Your task to perform on an android device: Go to display settings Image 0: 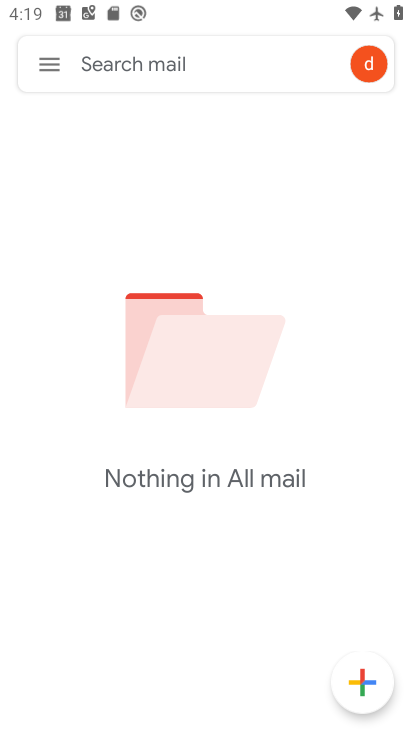
Step 0: press home button
Your task to perform on an android device: Go to display settings Image 1: 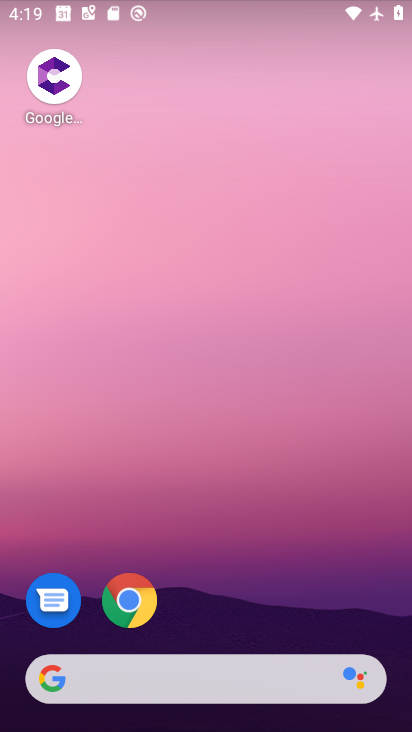
Step 1: drag from (261, 582) to (167, 170)
Your task to perform on an android device: Go to display settings Image 2: 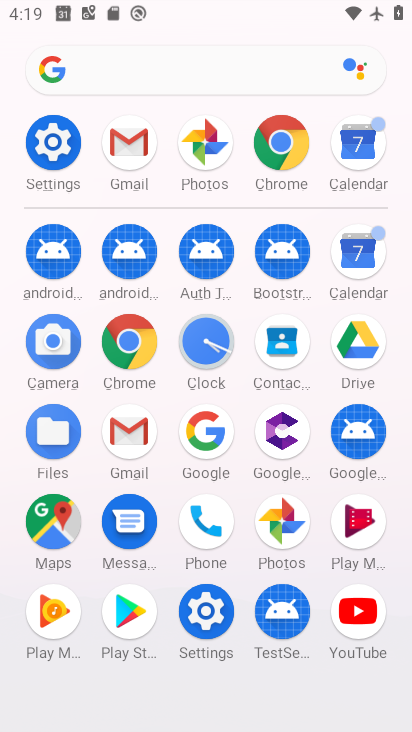
Step 2: click (55, 144)
Your task to perform on an android device: Go to display settings Image 3: 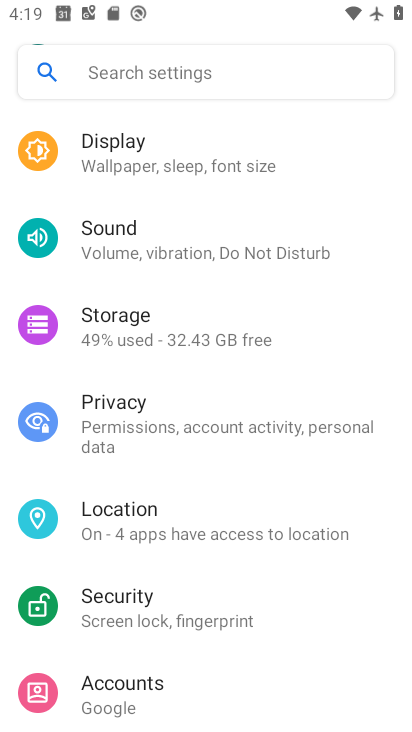
Step 3: click (208, 150)
Your task to perform on an android device: Go to display settings Image 4: 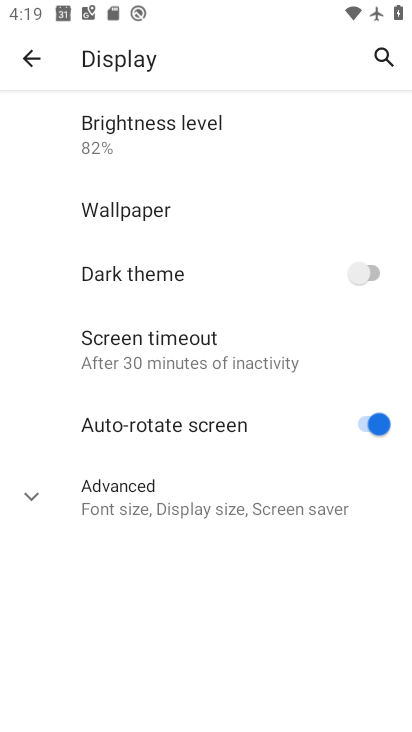
Step 4: task complete